Your task to perform on an android device: Open Chrome and go to the settings page Image 0: 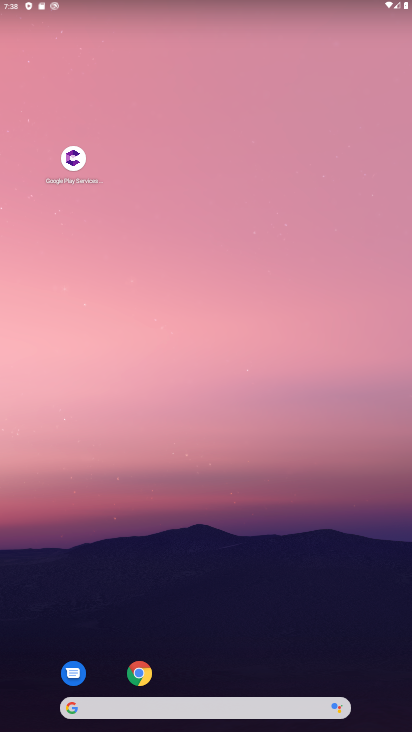
Step 0: drag from (308, 451) to (249, 222)
Your task to perform on an android device: Open Chrome and go to the settings page Image 1: 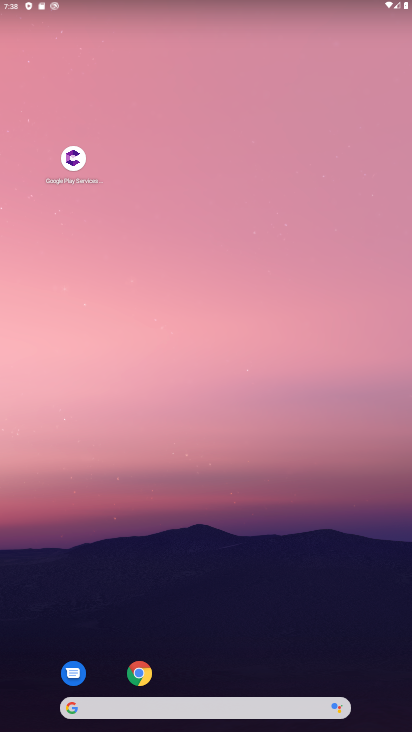
Step 1: drag from (308, 613) to (256, 61)
Your task to perform on an android device: Open Chrome and go to the settings page Image 2: 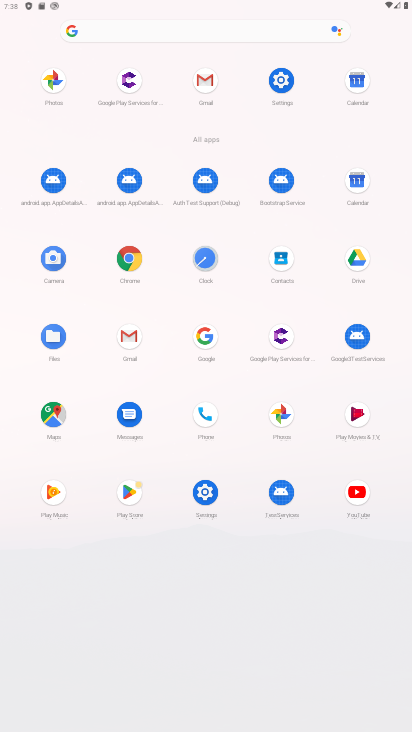
Step 2: click (132, 257)
Your task to perform on an android device: Open Chrome and go to the settings page Image 3: 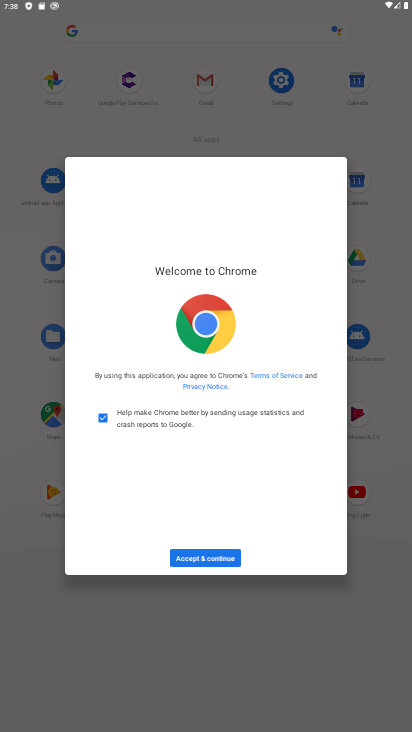
Step 3: click (214, 552)
Your task to perform on an android device: Open Chrome and go to the settings page Image 4: 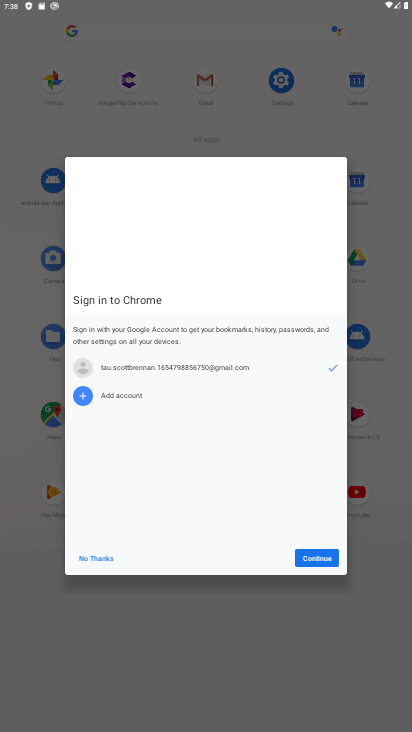
Step 4: click (316, 555)
Your task to perform on an android device: Open Chrome and go to the settings page Image 5: 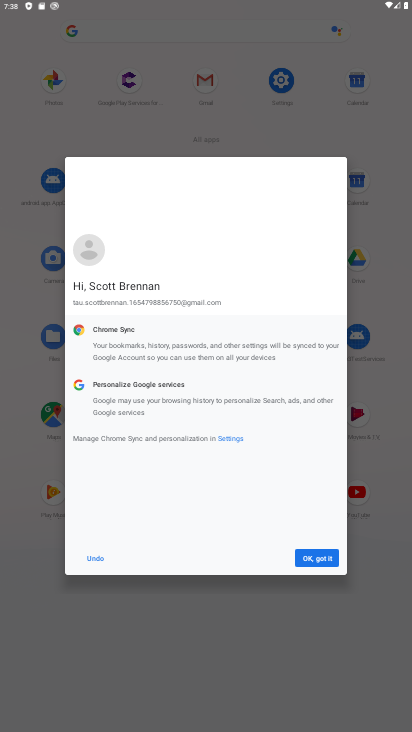
Step 5: click (315, 560)
Your task to perform on an android device: Open Chrome and go to the settings page Image 6: 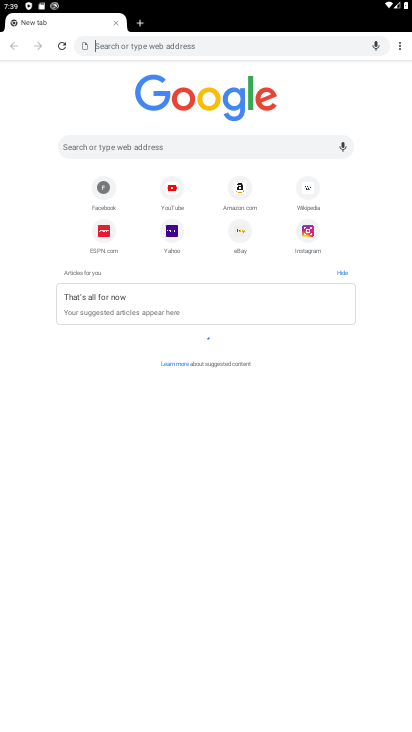
Step 6: task complete